Your task to perform on an android device: snooze an email in the gmail app Image 0: 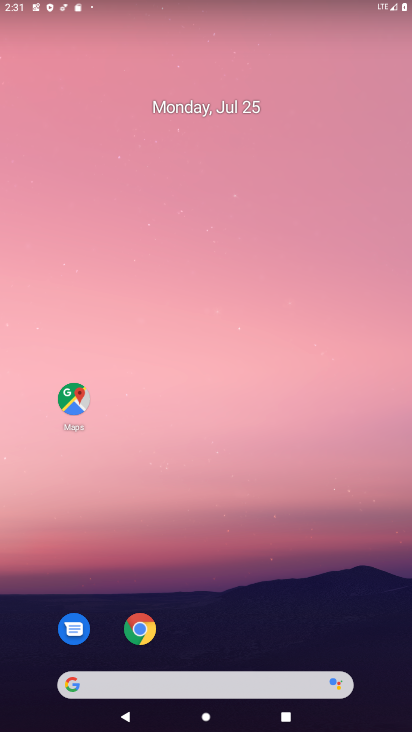
Step 0: drag from (192, 628) to (214, 107)
Your task to perform on an android device: snooze an email in the gmail app Image 1: 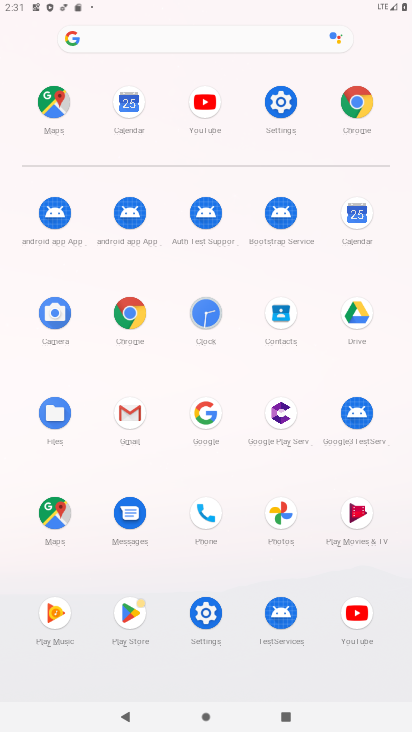
Step 1: click (119, 397)
Your task to perform on an android device: snooze an email in the gmail app Image 2: 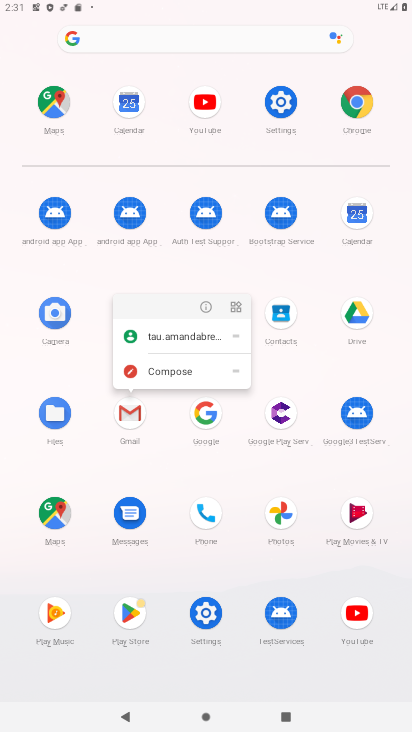
Step 2: click (202, 305)
Your task to perform on an android device: snooze an email in the gmail app Image 3: 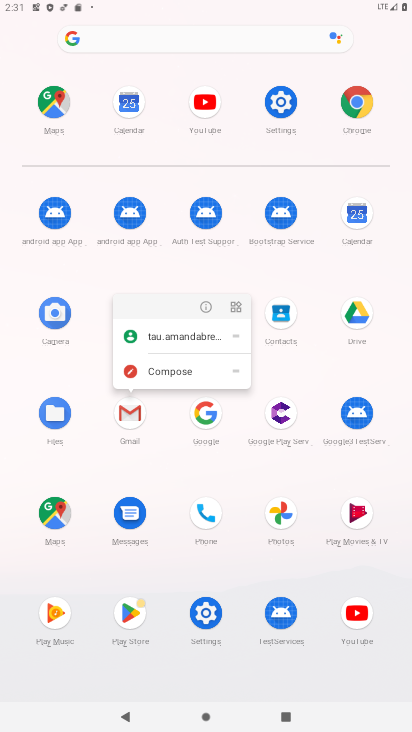
Step 3: click (202, 305)
Your task to perform on an android device: snooze an email in the gmail app Image 4: 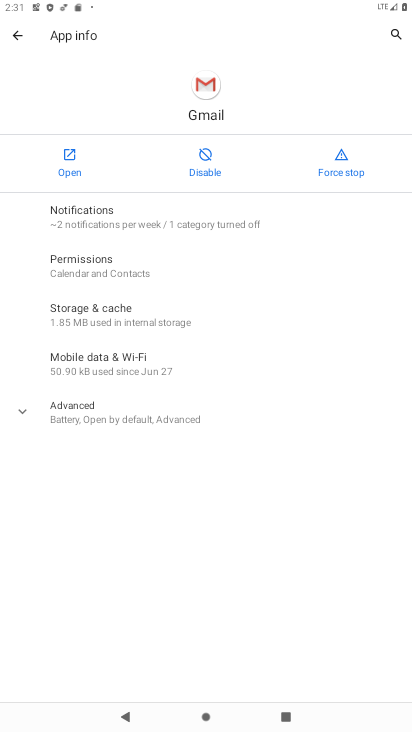
Step 4: click (66, 166)
Your task to perform on an android device: snooze an email in the gmail app Image 5: 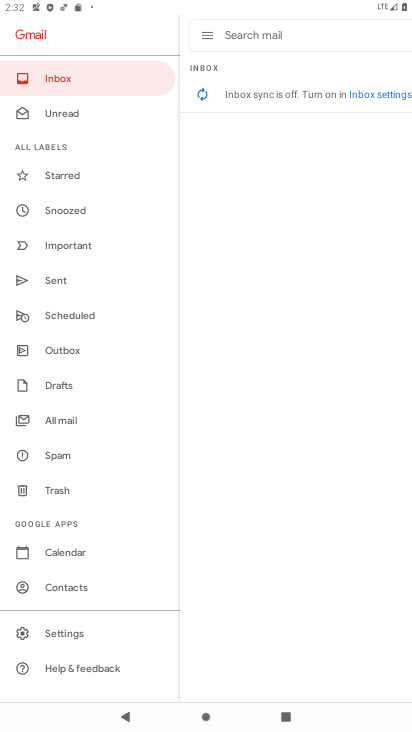
Step 5: click (73, 213)
Your task to perform on an android device: snooze an email in the gmail app Image 6: 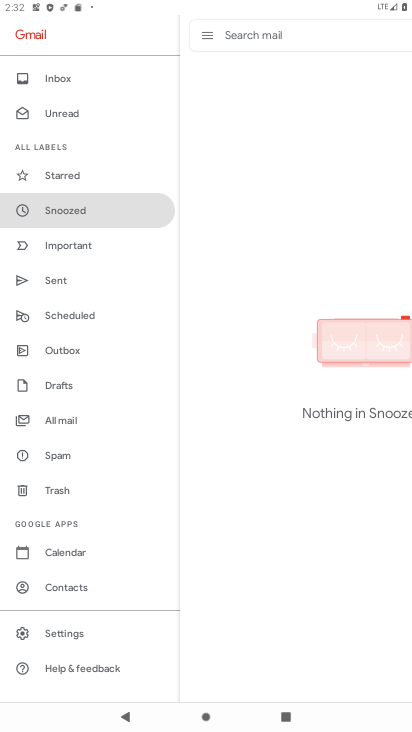
Step 6: click (61, 71)
Your task to perform on an android device: snooze an email in the gmail app Image 7: 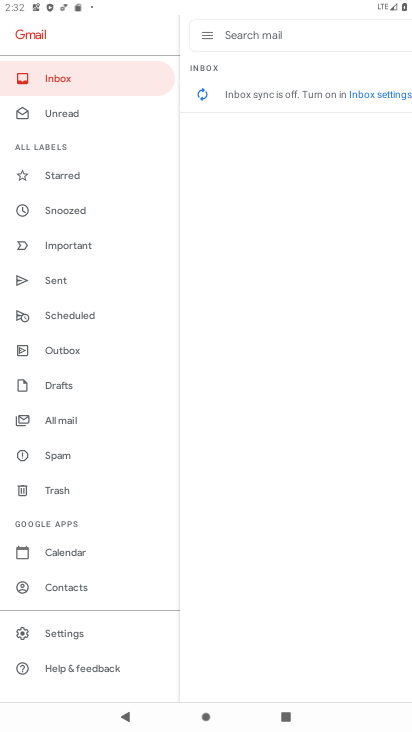
Step 7: task complete